Your task to perform on an android device: Open Youtube and go to the subscriptions tab Image 0: 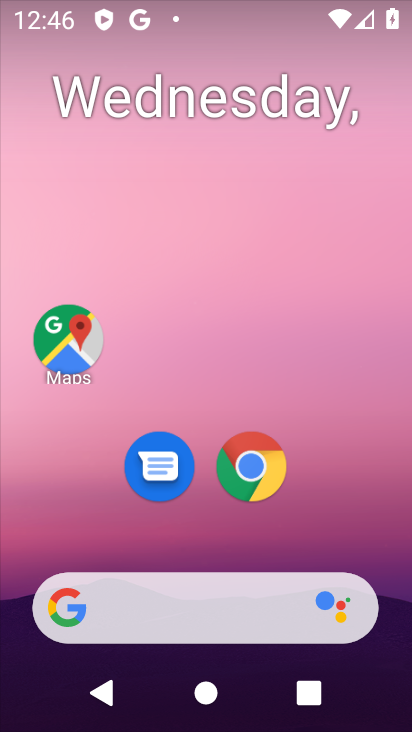
Step 0: drag from (342, 477) to (305, 95)
Your task to perform on an android device: Open Youtube and go to the subscriptions tab Image 1: 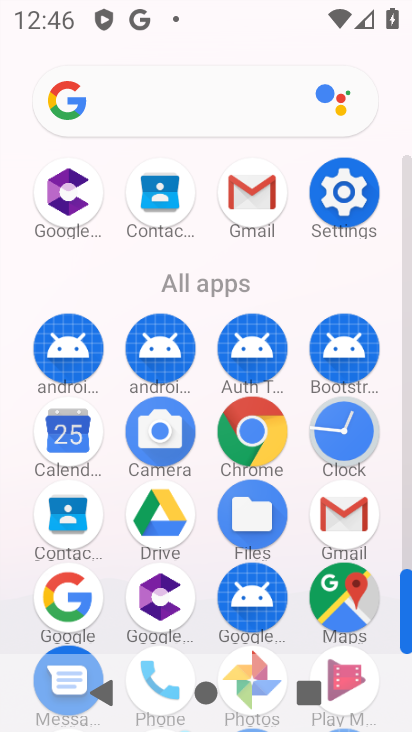
Step 1: drag from (299, 588) to (299, 120)
Your task to perform on an android device: Open Youtube and go to the subscriptions tab Image 2: 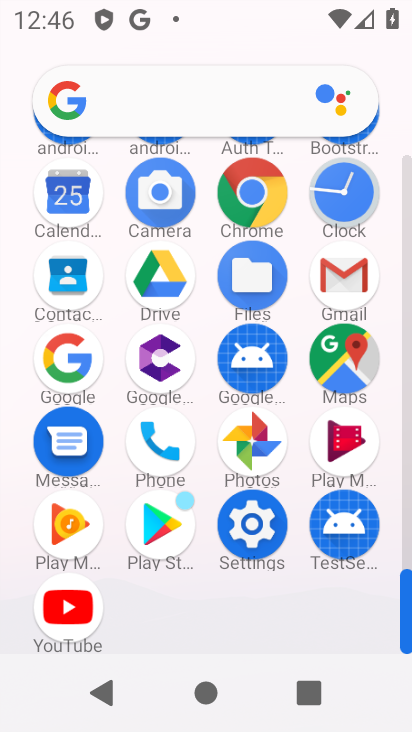
Step 2: click (59, 599)
Your task to perform on an android device: Open Youtube and go to the subscriptions tab Image 3: 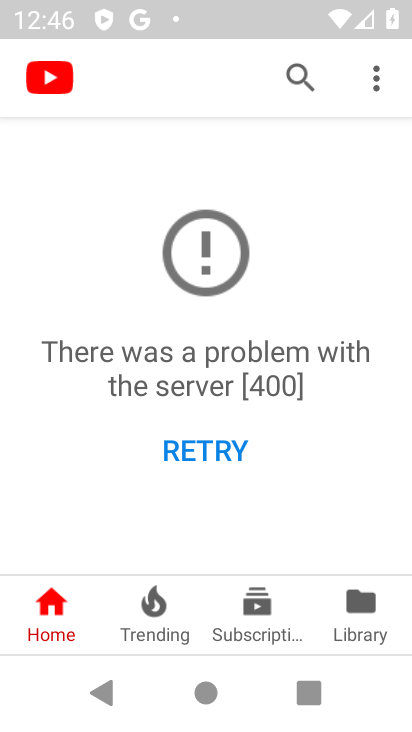
Step 3: click (244, 616)
Your task to perform on an android device: Open Youtube and go to the subscriptions tab Image 4: 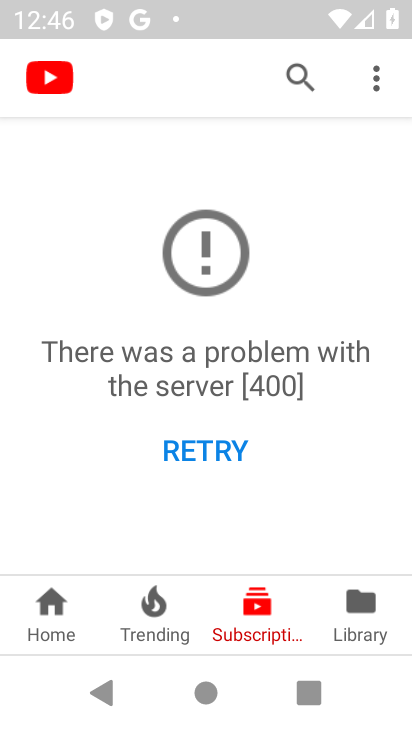
Step 4: click (189, 443)
Your task to perform on an android device: Open Youtube and go to the subscriptions tab Image 5: 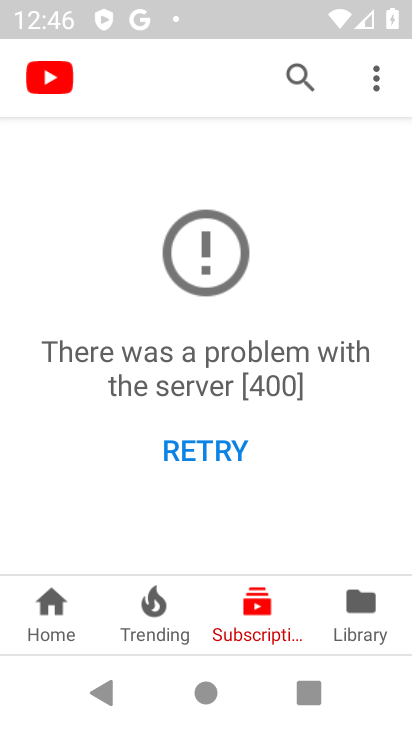
Step 5: click (189, 449)
Your task to perform on an android device: Open Youtube and go to the subscriptions tab Image 6: 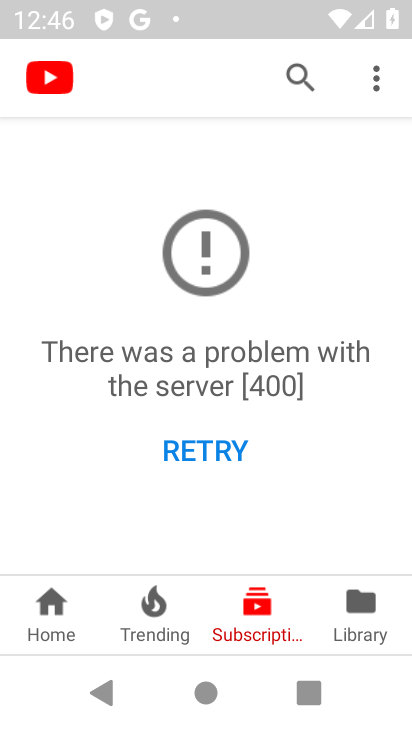
Step 6: task complete